Your task to perform on an android device: turn off location Image 0: 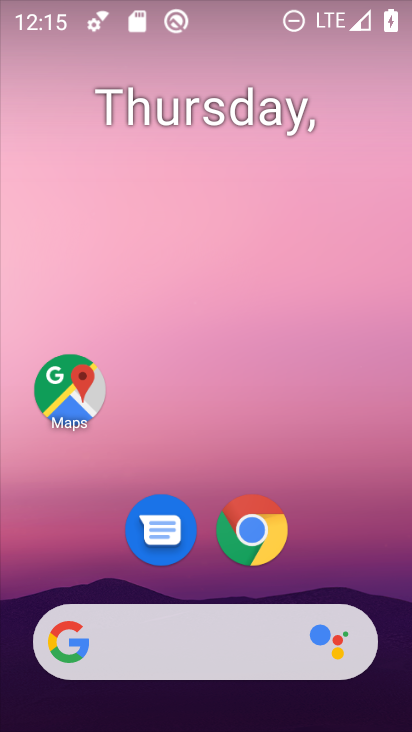
Step 0: drag from (251, 642) to (152, 0)
Your task to perform on an android device: turn off location Image 1: 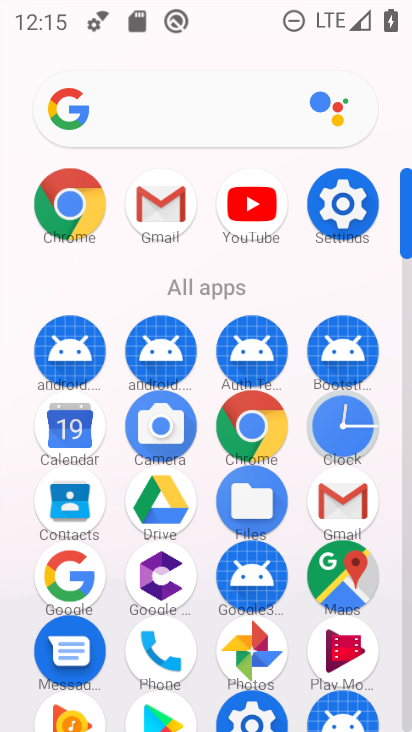
Step 1: click (336, 203)
Your task to perform on an android device: turn off location Image 2: 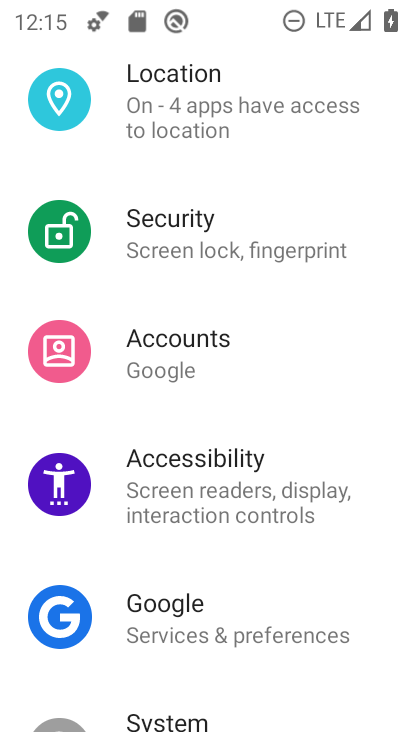
Step 2: click (215, 118)
Your task to perform on an android device: turn off location Image 3: 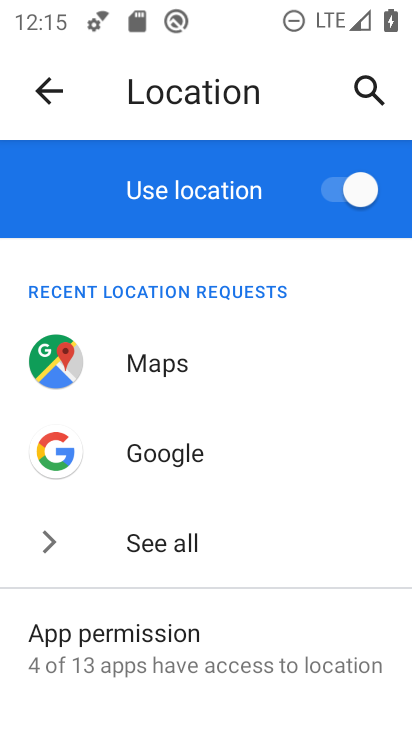
Step 3: click (336, 201)
Your task to perform on an android device: turn off location Image 4: 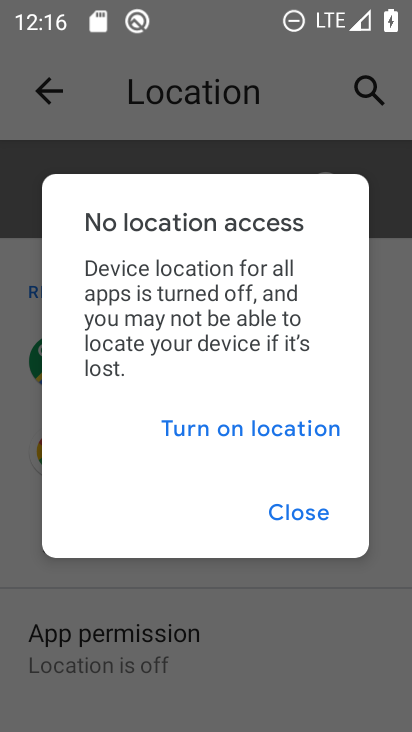
Step 4: click (287, 508)
Your task to perform on an android device: turn off location Image 5: 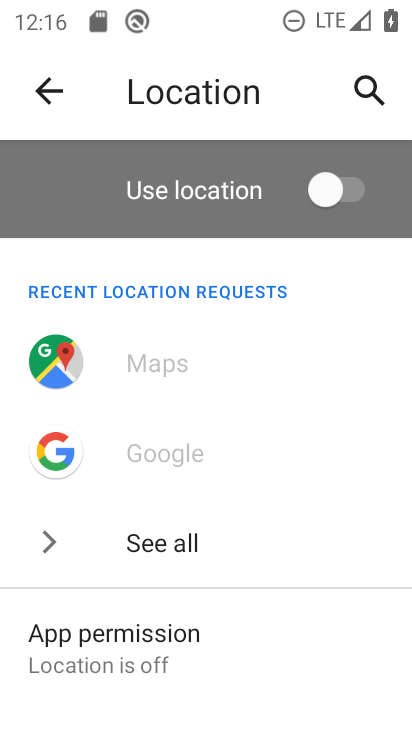
Step 5: task complete